Your task to perform on an android device: change the clock display to digital Image 0: 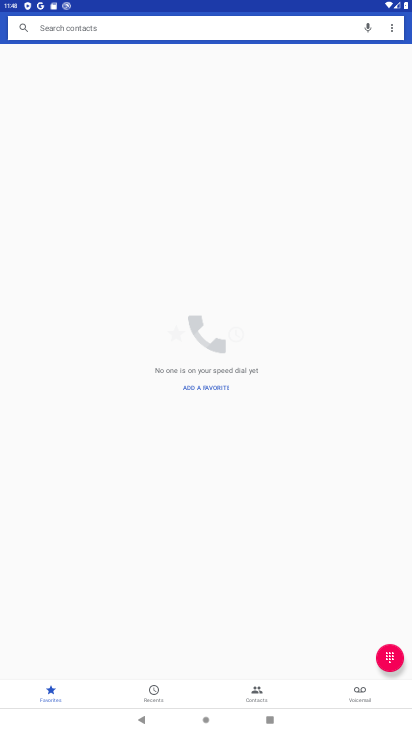
Step 0: press home button
Your task to perform on an android device: change the clock display to digital Image 1: 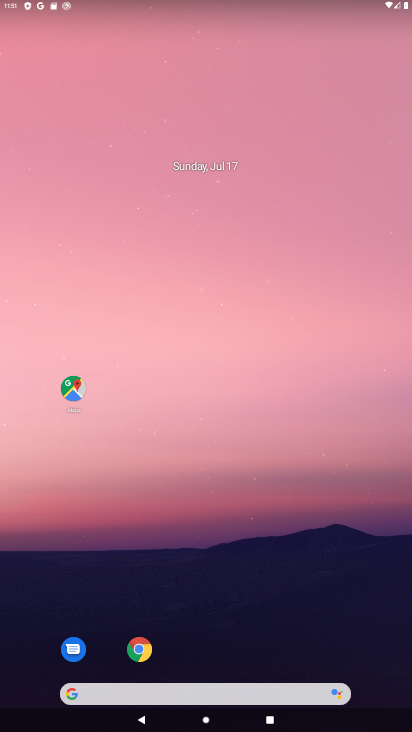
Step 1: drag from (233, 657) to (195, 100)
Your task to perform on an android device: change the clock display to digital Image 2: 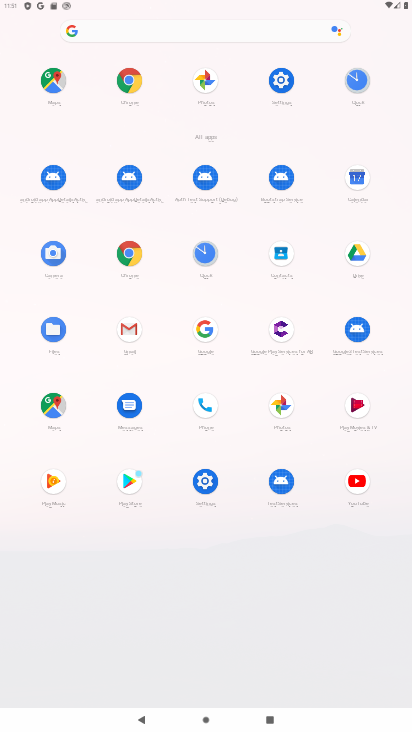
Step 2: click (200, 247)
Your task to perform on an android device: change the clock display to digital Image 3: 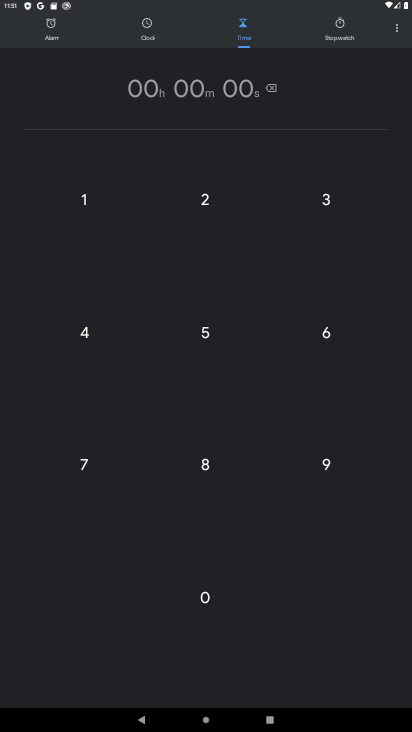
Step 3: click (387, 25)
Your task to perform on an android device: change the clock display to digital Image 4: 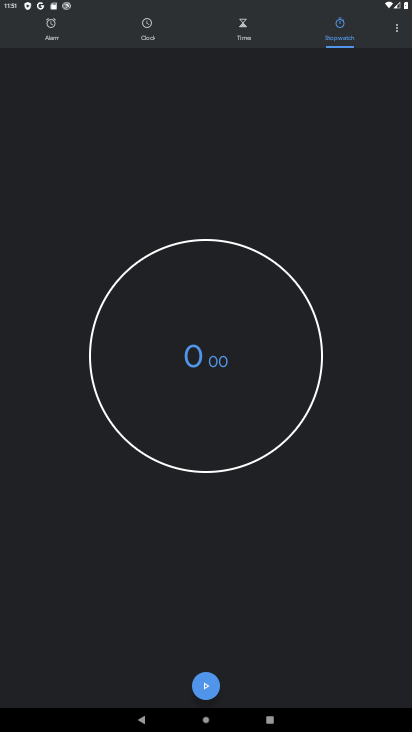
Step 4: click (402, 32)
Your task to perform on an android device: change the clock display to digital Image 5: 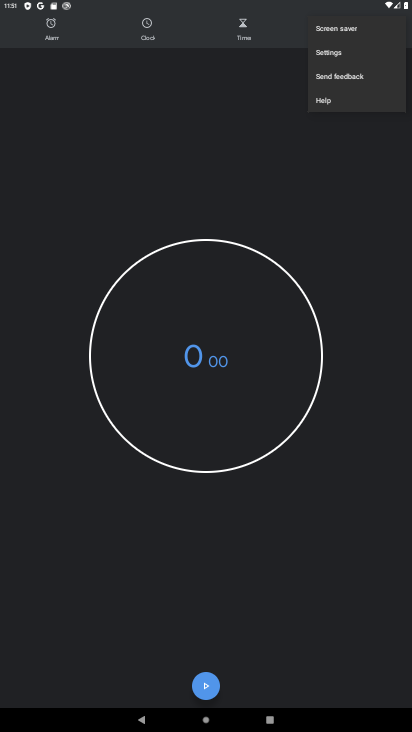
Step 5: click (349, 64)
Your task to perform on an android device: change the clock display to digital Image 6: 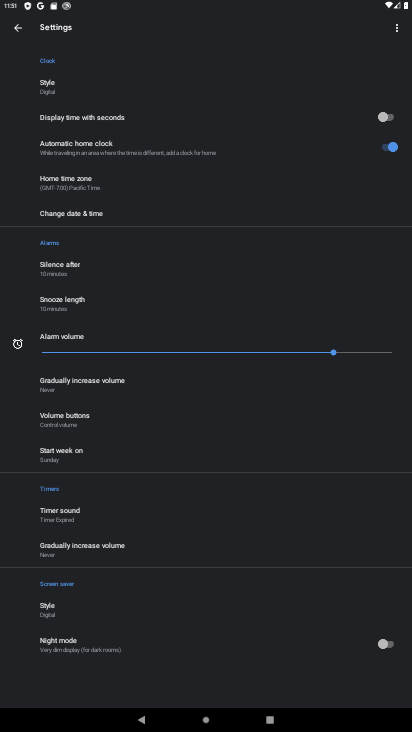
Step 6: task complete